Your task to perform on an android device: find snoozed emails in the gmail app Image 0: 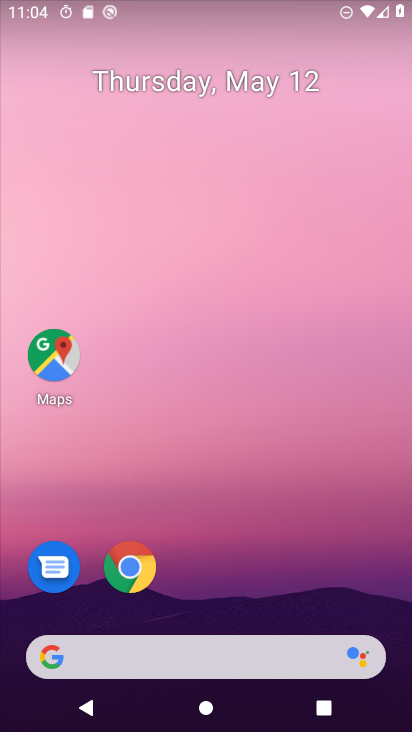
Step 0: drag from (184, 600) to (243, 271)
Your task to perform on an android device: find snoozed emails in the gmail app Image 1: 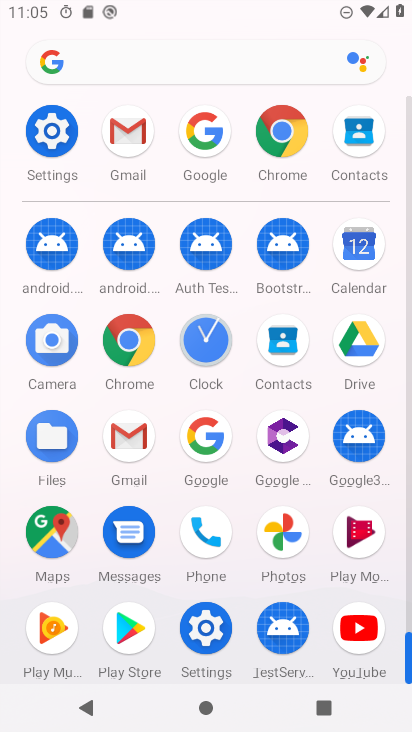
Step 1: click (135, 448)
Your task to perform on an android device: find snoozed emails in the gmail app Image 2: 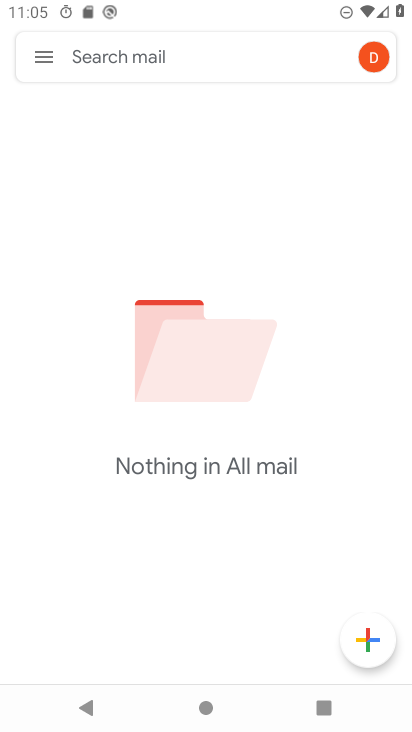
Step 2: click (49, 52)
Your task to perform on an android device: find snoozed emails in the gmail app Image 3: 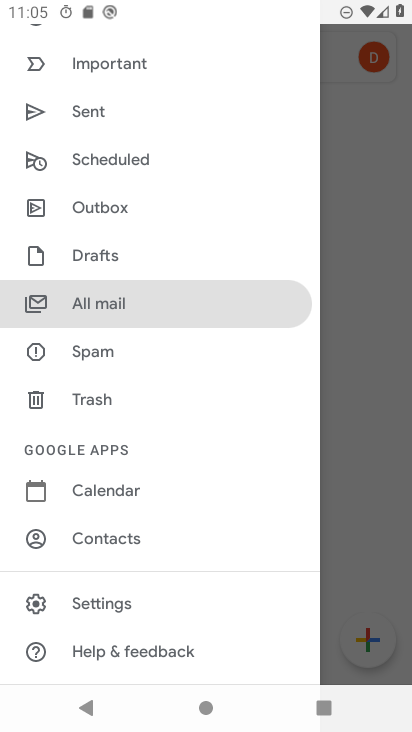
Step 3: drag from (143, 276) to (94, 636)
Your task to perform on an android device: find snoozed emails in the gmail app Image 4: 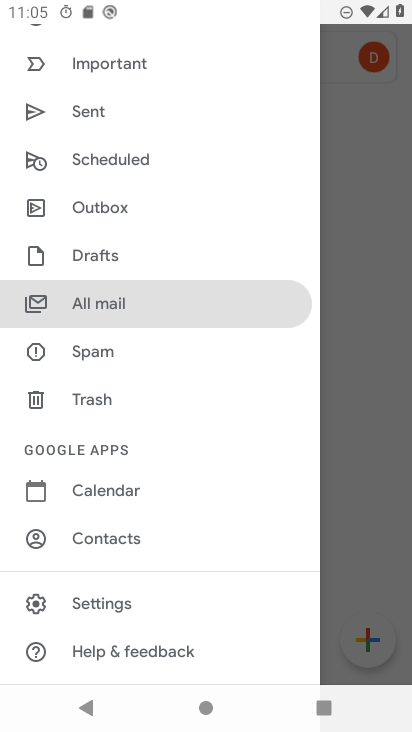
Step 4: drag from (125, 331) to (116, 528)
Your task to perform on an android device: find snoozed emails in the gmail app Image 5: 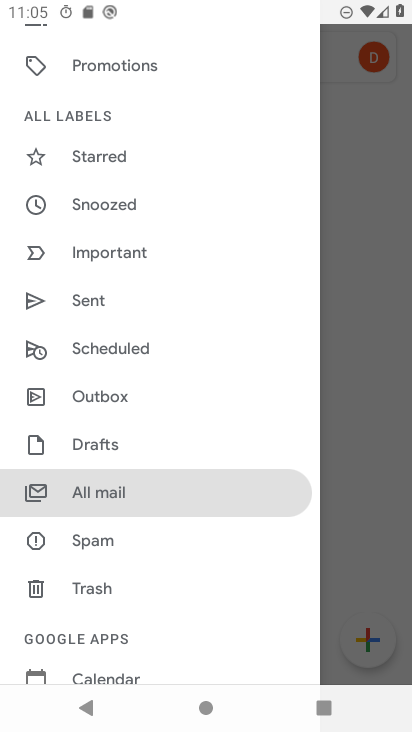
Step 5: drag from (123, 206) to (84, 386)
Your task to perform on an android device: find snoozed emails in the gmail app Image 6: 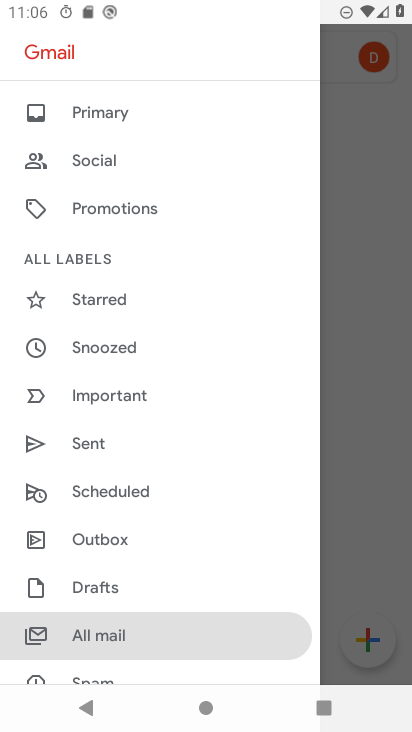
Step 6: click (110, 353)
Your task to perform on an android device: find snoozed emails in the gmail app Image 7: 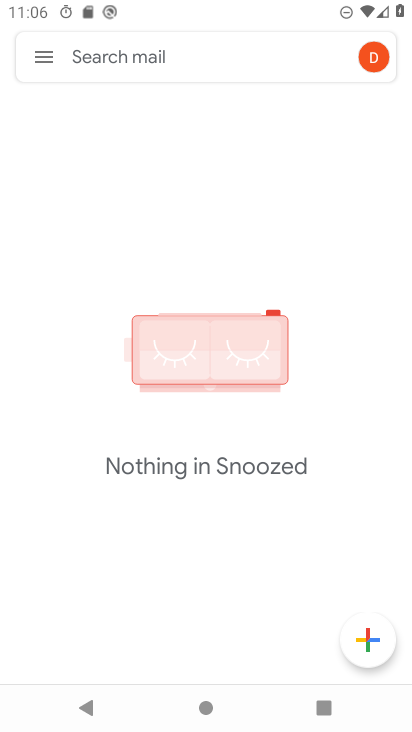
Step 7: task complete